Your task to perform on an android device: Show me popular videos on Youtube Image 0: 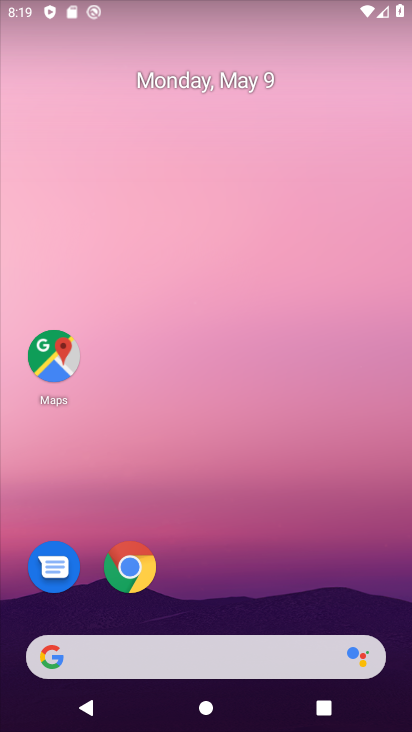
Step 0: drag from (265, 549) to (268, 123)
Your task to perform on an android device: Show me popular videos on Youtube Image 1: 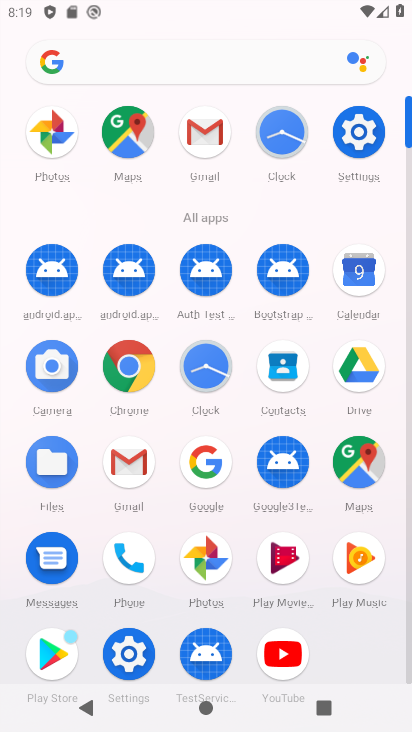
Step 1: click (276, 650)
Your task to perform on an android device: Show me popular videos on Youtube Image 2: 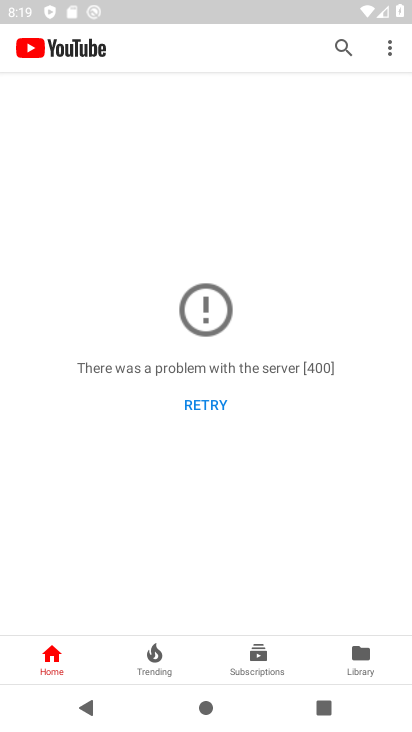
Step 2: click (156, 658)
Your task to perform on an android device: Show me popular videos on Youtube Image 3: 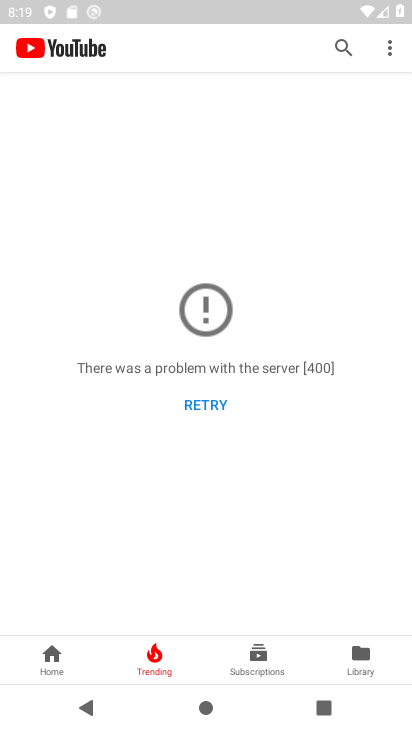
Step 3: task complete